Your task to perform on an android device: find which apps use the phone's location Image 0: 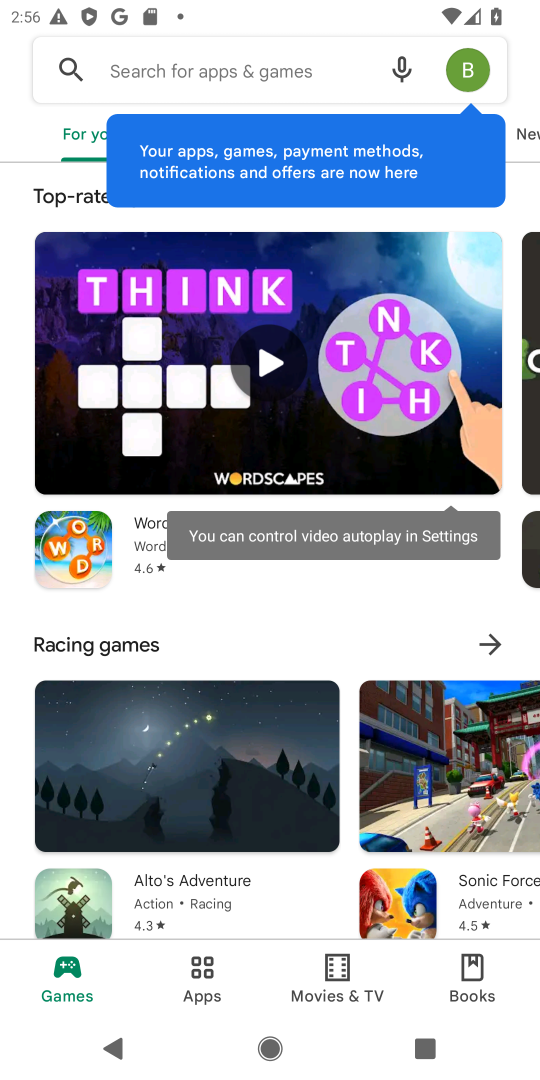
Step 0: press home button
Your task to perform on an android device: find which apps use the phone's location Image 1: 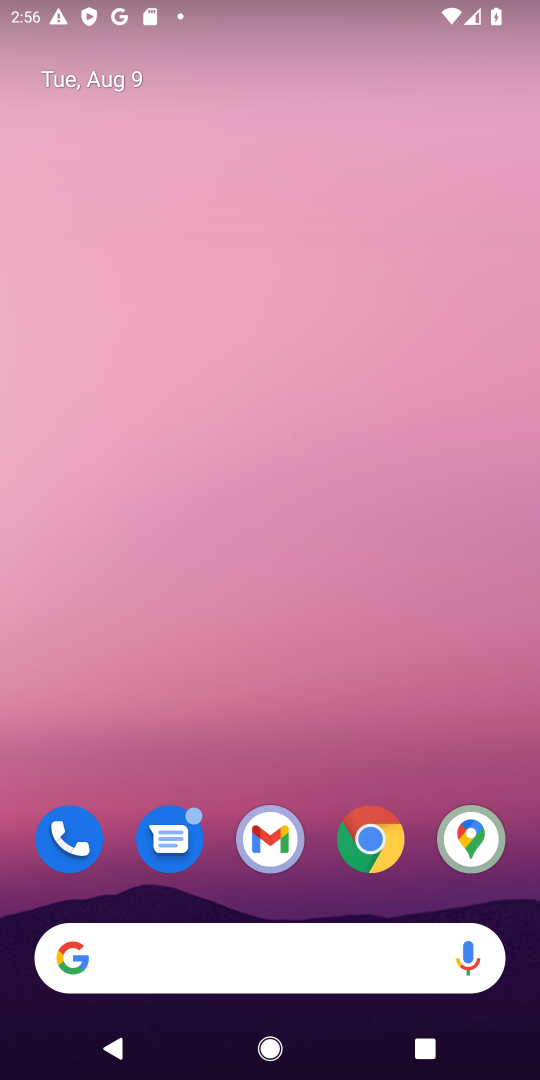
Step 1: drag from (295, 763) to (229, 58)
Your task to perform on an android device: find which apps use the phone's location Image 2: 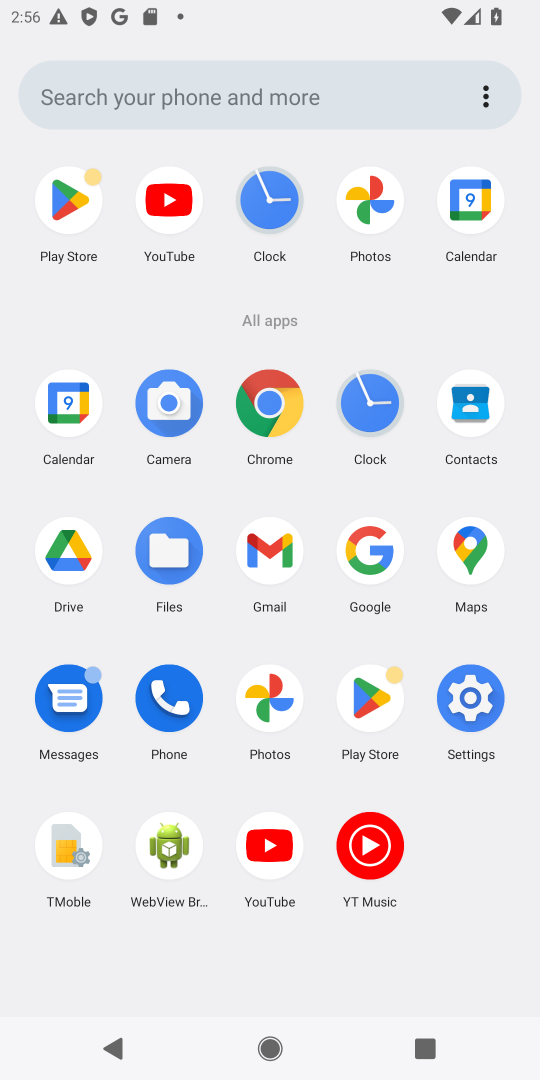
Step 2: click (480, 709)
Your task to perform on an android device: find which apps use the phone's location Image 3: 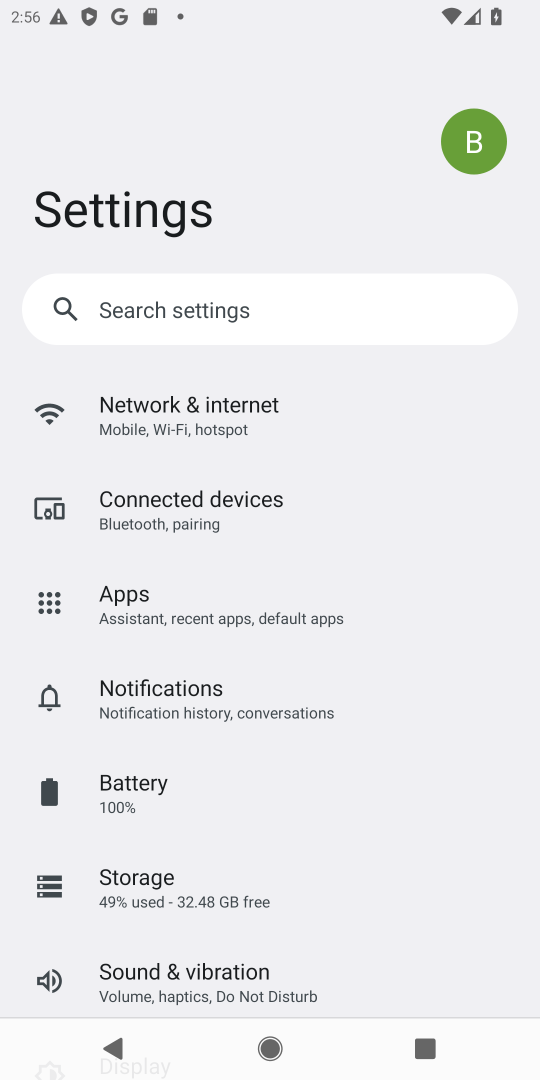
Step 3: drag from (362, 923) to (321, 491)
Your task to perform on an android device: find which apps use the phone's location Image 4: 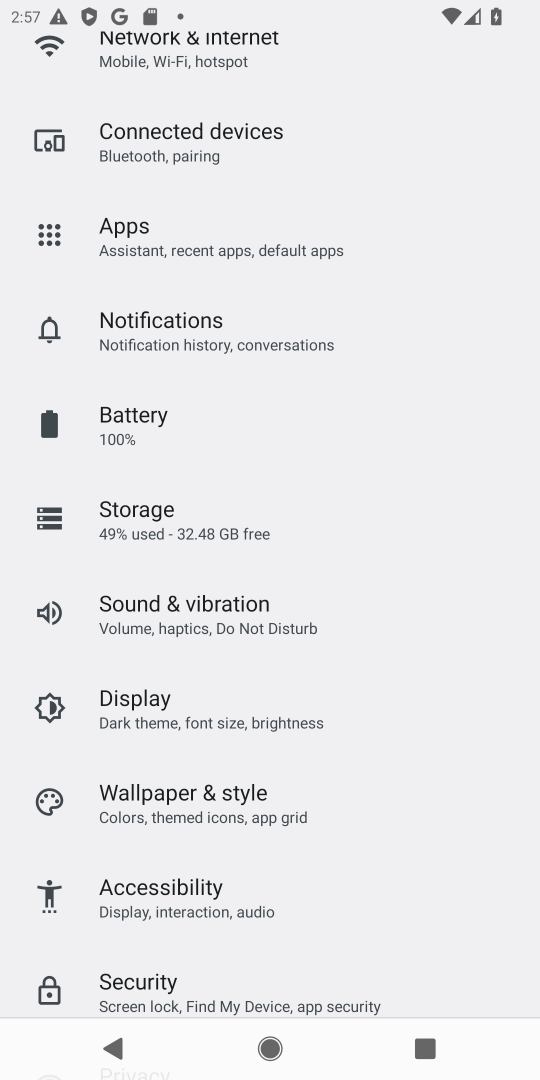
Step 4: drag from (139, 852) to (131, 487)
Your task to perform on an android device: find which apps use the phone's location Image 5: 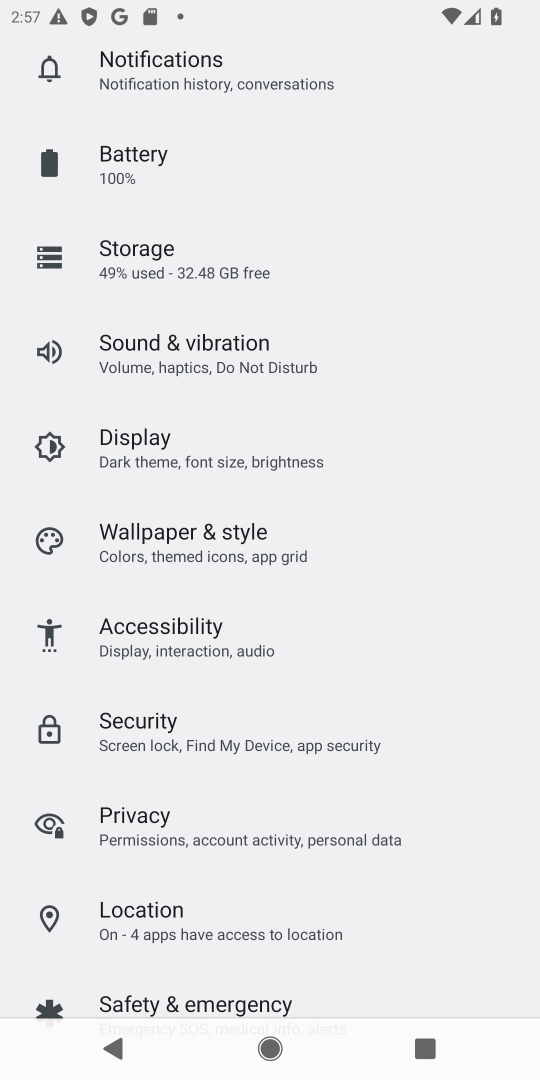
Step 5: click (104, 902)
Your task to perform on an android device: find which apps use the phone's location Image 6: 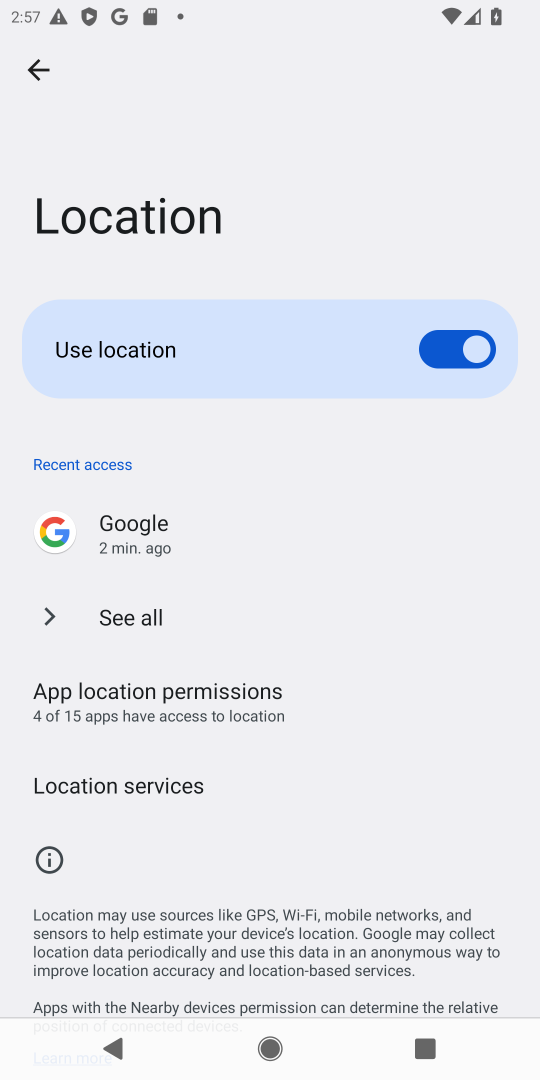
Step 6: click (92, 696)
Your task to perform on an android device: find which apps use the phone's location Image 7: 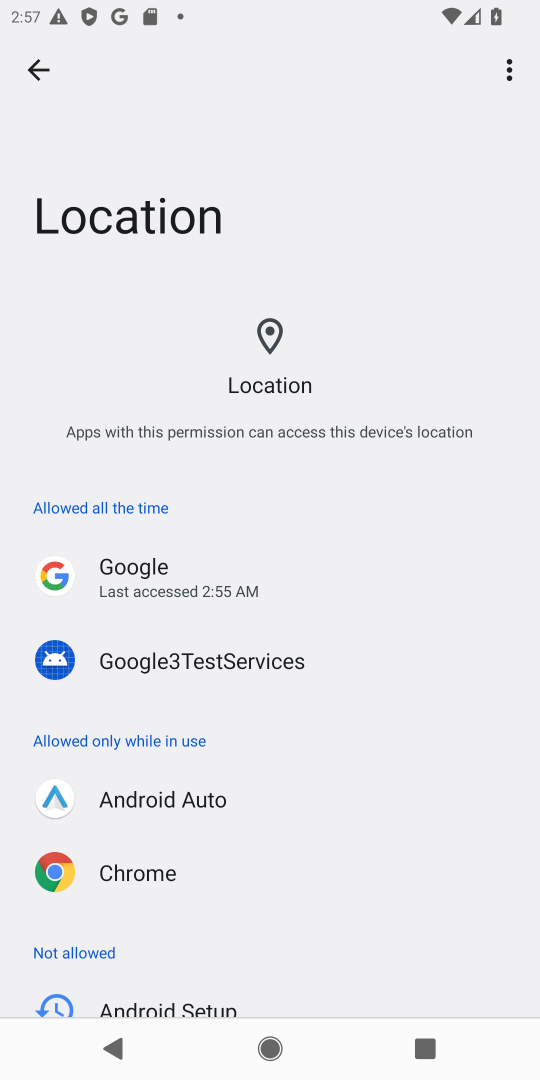
Step 7: task complete